Your task to perform on an android device: toggle priority inbox in the gmail app Image 0: 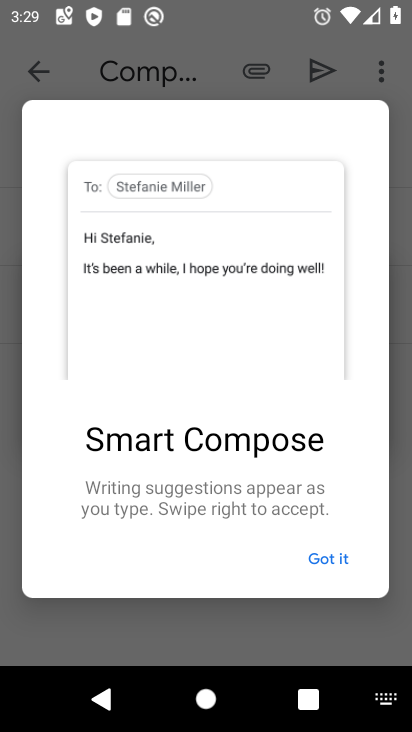
Step 0: press home button
Your task to perform on an android device: toggle priority inbox in the gmail app Image 1: 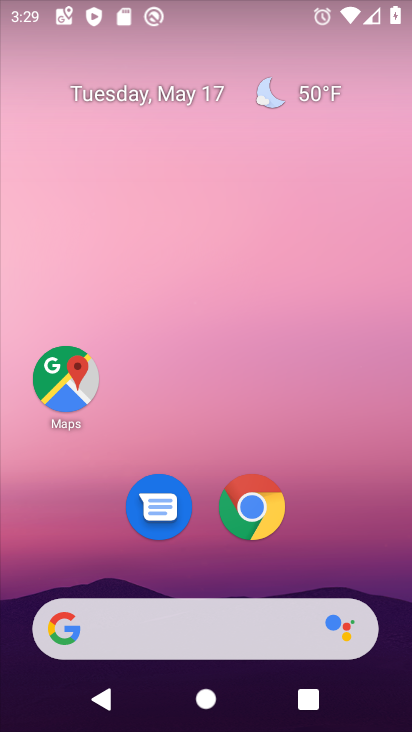
Step 1: drag from (330, 559) to (195, 4)
Your task to perform on an android device: toggle priority inbox in the gmail app Image 2: 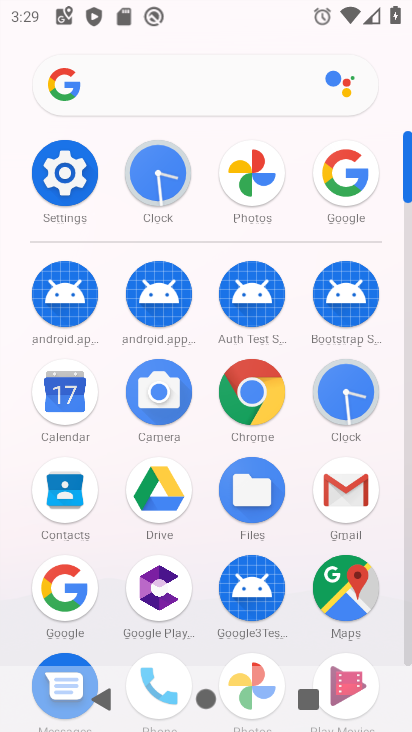
Step 2: click (340, 491)
Your task to perform on an android device: toggle priority inbox in the gmail app Image 3: 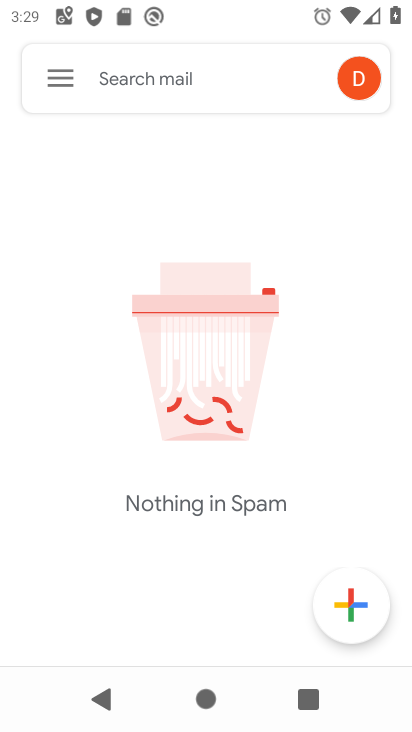
Step 3: click (59, 80)
Your task to perform on an android device: toggle priority inbox in the gmail app Image 4: 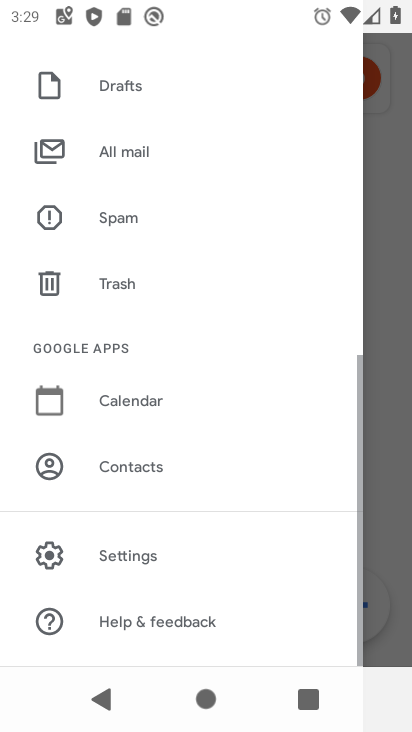
Step 4: drag from (203, 553) to (207, 494)
Your task to perform on an android device: toggle priority inbox in the gmail app Image 5: 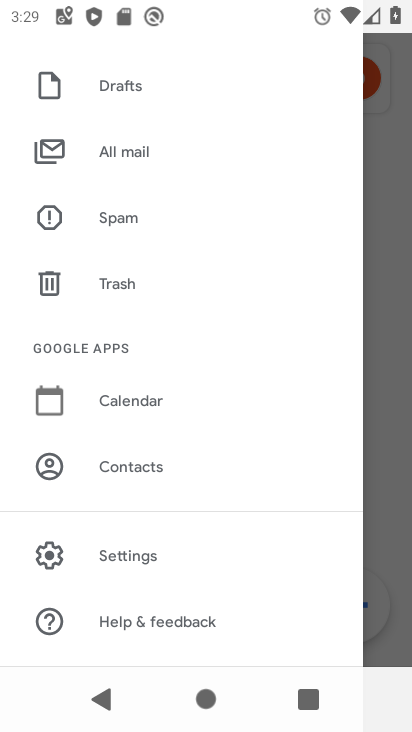
Step 5: click (190, 550)
Your task to perform on an android device: toggle priority inbox in the gmail app Image 6: 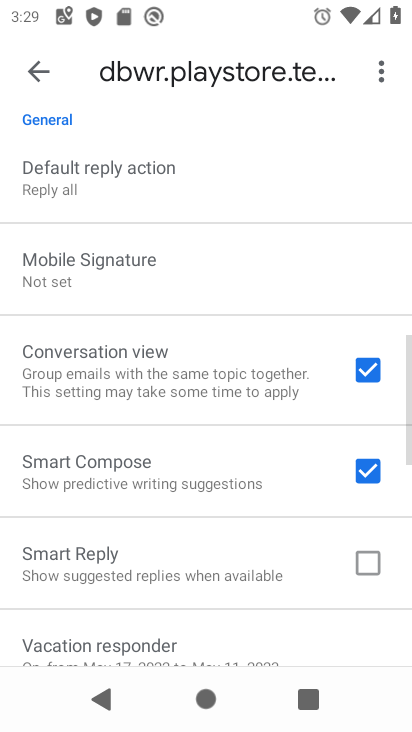
Step 6: drag from (202, 206) to (160, 713)
Your task to perform on an android device: toggle priority inbox in the gmail app Image 7: 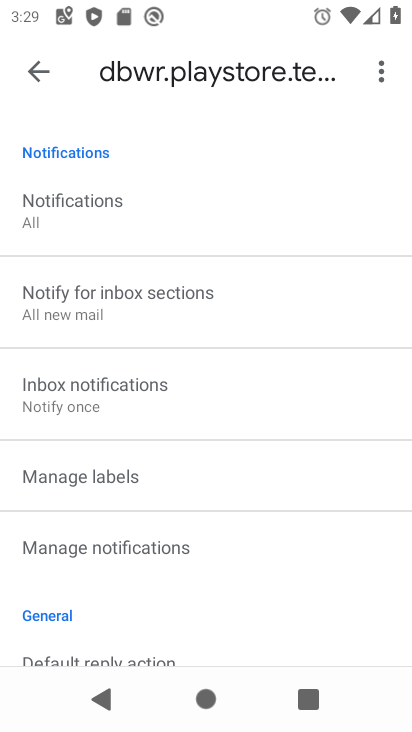
Step 7: drag from (203, 259) to (149, 676)
Your task to perform on an android device: toggle priority inbox in the gmail app Image 8: 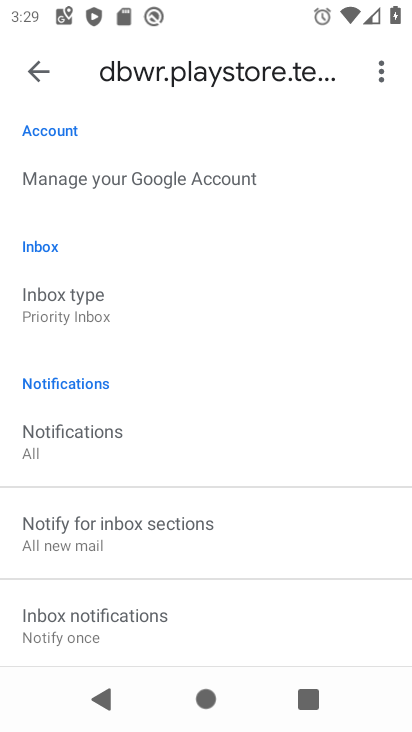
Step 8: click (111, 303)
Your task to perform on an android device: toggle priority inbox in the gmail app Image 9: 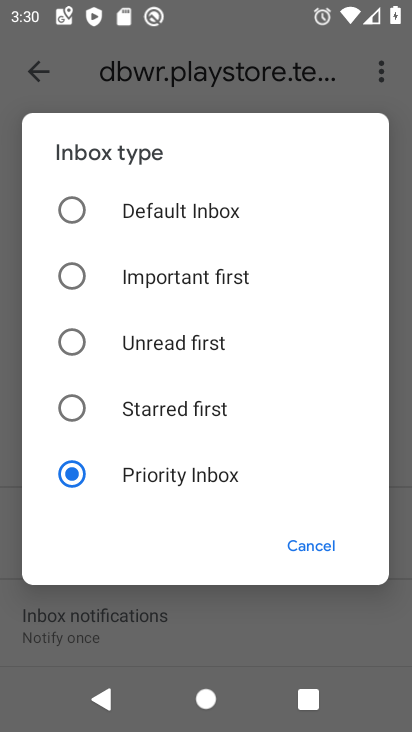
Step 9: click (174, 200)
Your task to perform on an android device: toggle priority inbox in the gmail app Image 10: 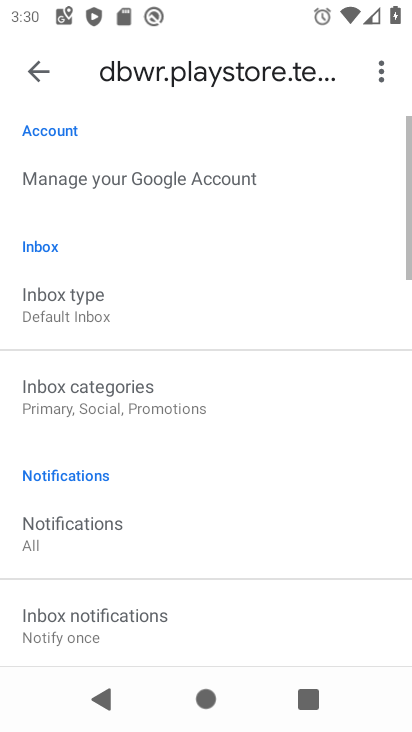
Step 10: task complete